Your task to perform on an android device: turn pop-ups off in chrome Image 0: 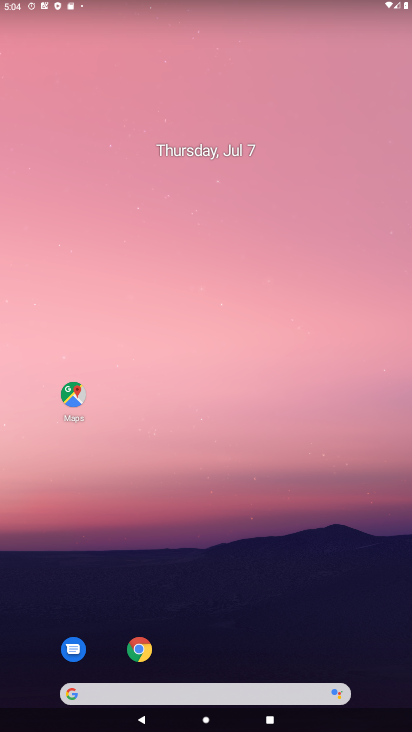
Step 0: drag from (369, 674) to (207, 87)
Your task to perform on an android device: turn pop-ups off in chrome Image 1: 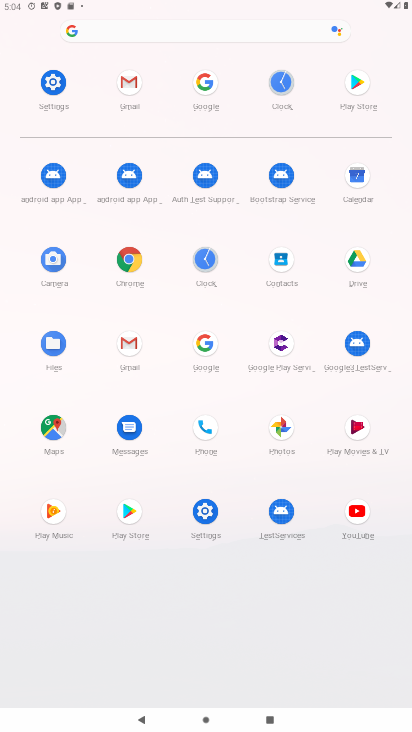
Step 1: click (127, 269)
Your task to perform on an android device: turn pop-ups off in chrome Image 2: 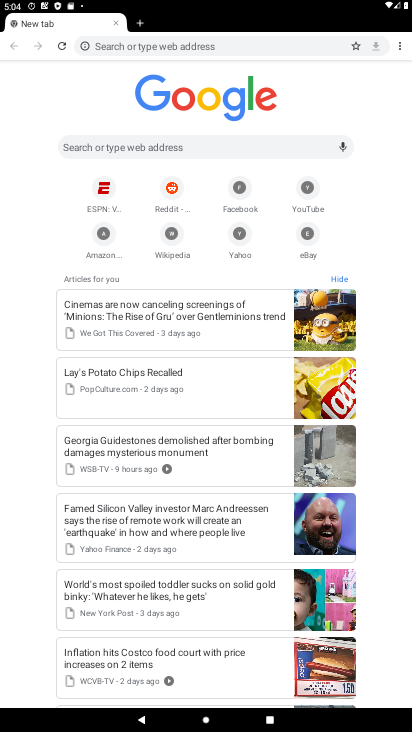
Step 2: click (395, 46)
Your task to perform on an android device: turn pop-ups off in chrome Image 3: 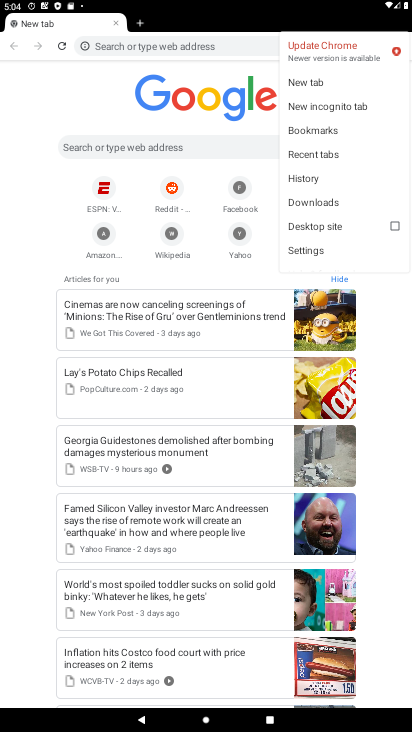
Step 3: click (312, 250)
Your task to perform on an android device: turn pop-ups off in chrome Image 4: 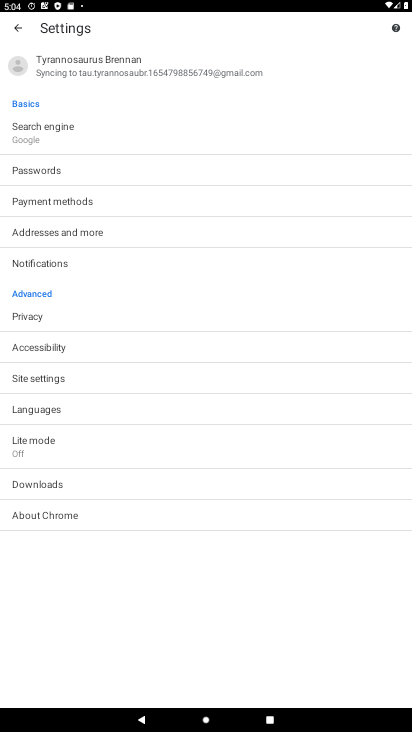
Step 4: click (132, 375)
Your task to perform on an android device: turn pop-ups off in chrome Image 5: 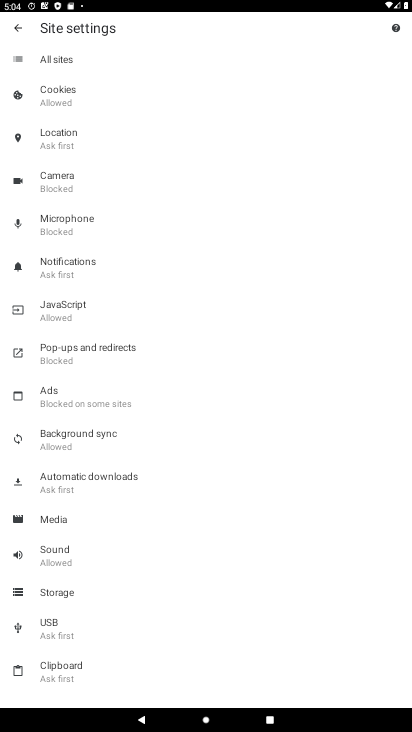
Step 5: click (88, 358)
Your task to perform on an android device: turn pop-ups off in chrome Image 6: 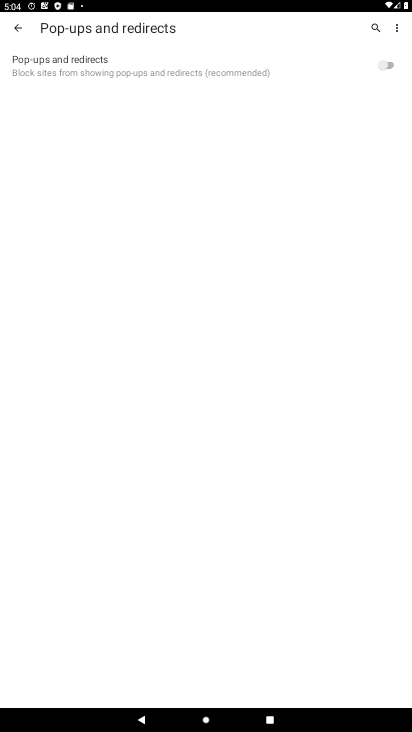
Step 6: task complete